Your task to perform on an android device: uninstall "ColorNote Notepad Notes" Image 0: 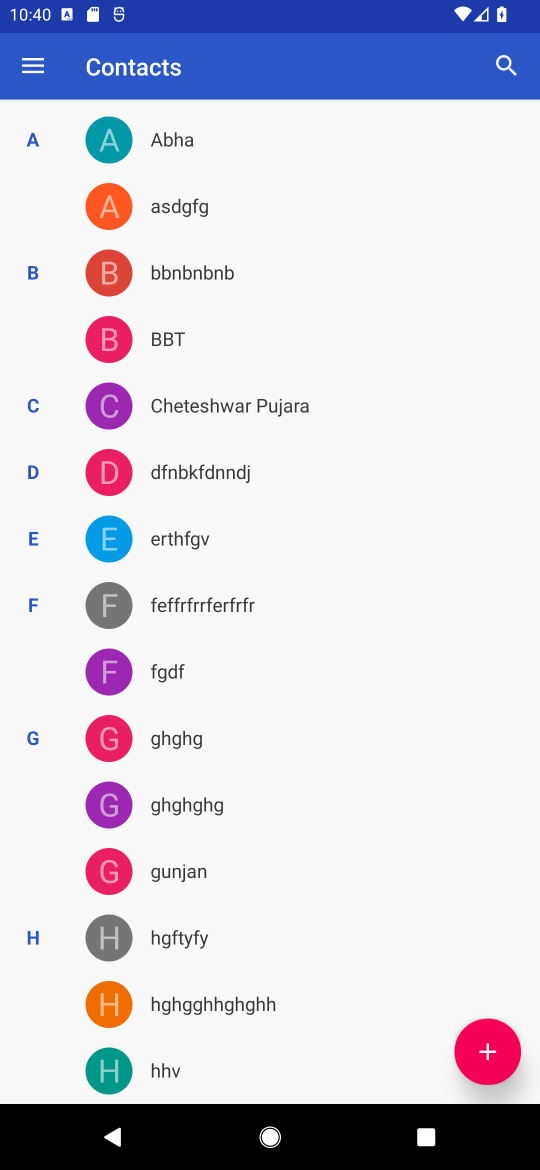
Step 0: press home button
Your task to perform on an android device: uninstall "ColorNote Notepad Notes" Image 1: 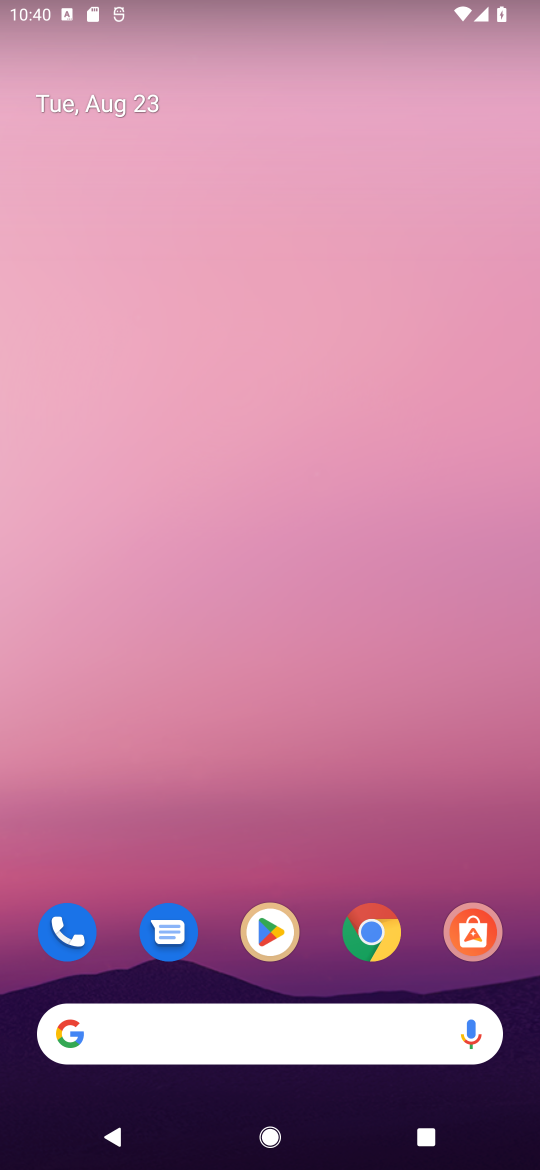
Step 1: click (266, 933)
Your task to perform on an android device: uninstall "ColorNote Notepad Notes" Image 2: 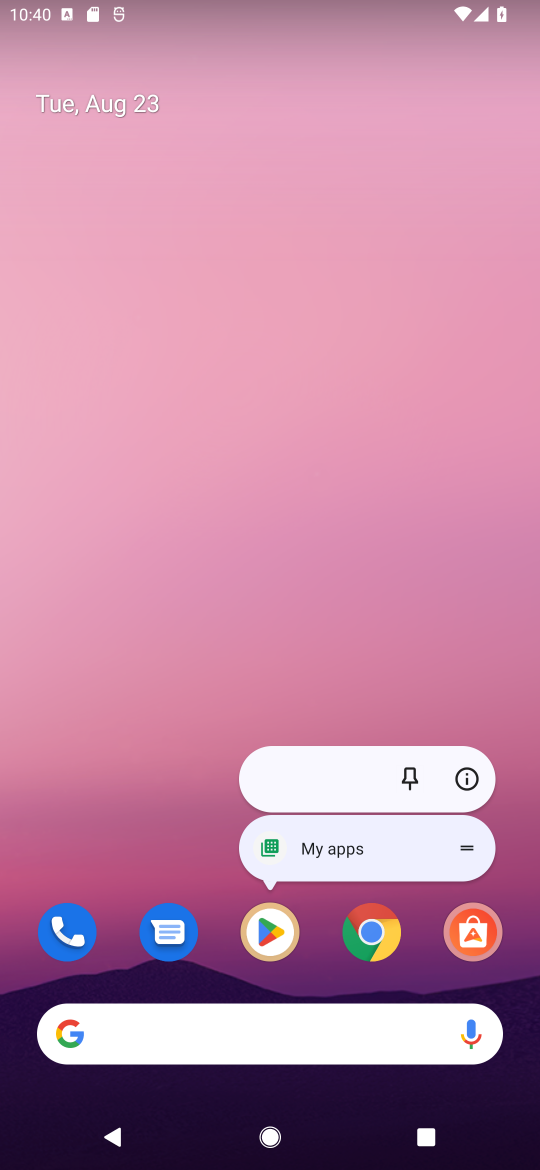
Step 2: click (252, 939)
Your task to perform on an android device: uninstall "ColorNote Notepad Notes" Image 3: 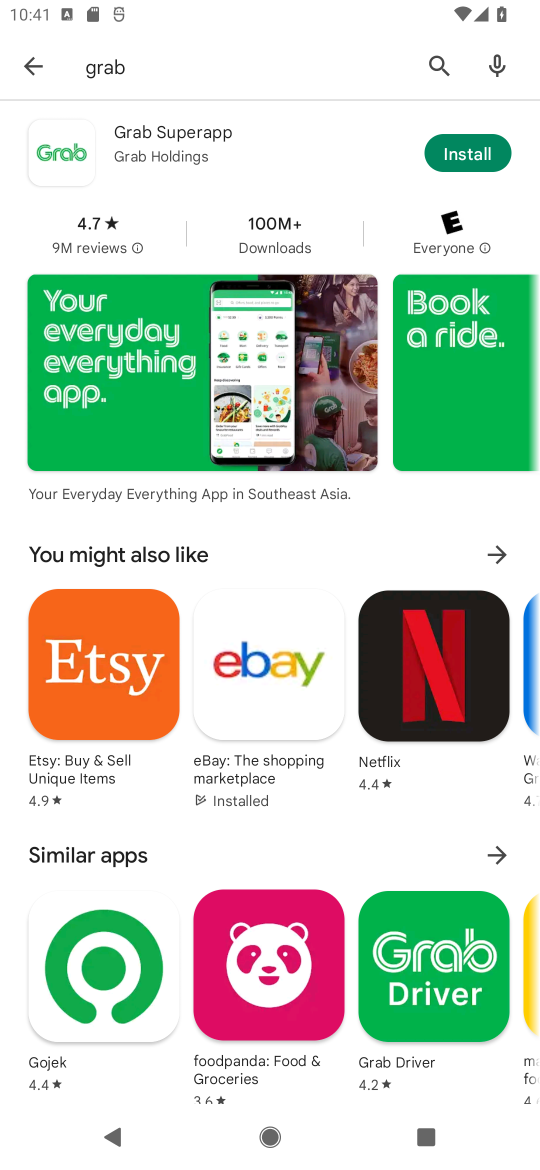
Step 3: click (451, 79)
Your task to perform on an android device: uninstall "ColorNote Notepad Notes" Image 4: 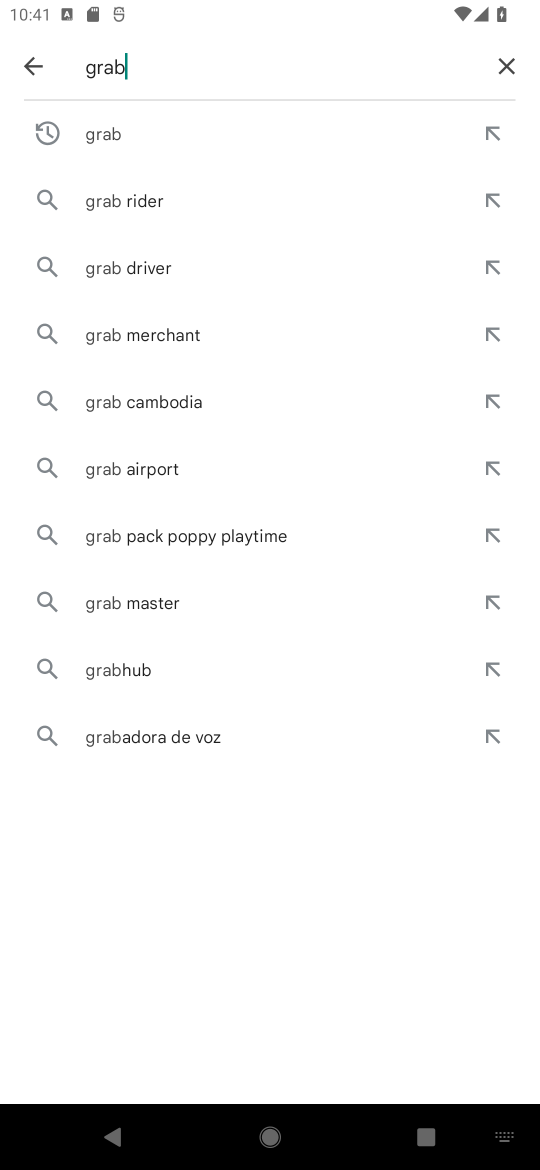
Step 4: click (515, 56)
Your task to perform on an android device: uninstall "ColorNote Notepad Notes" Image 5: 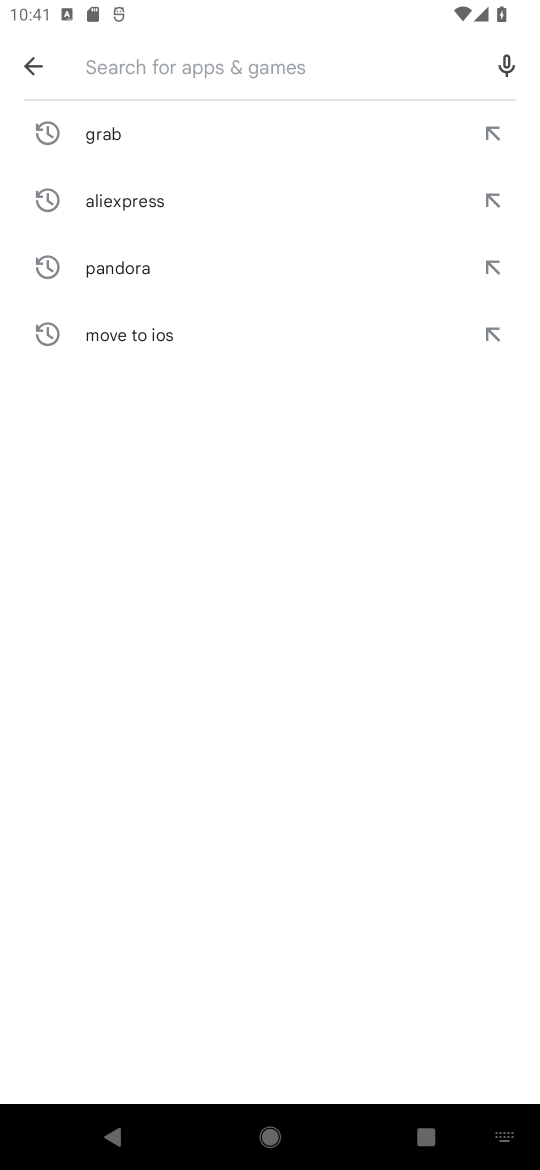
Step 5: click (152, 51)
Your task to perform on an android device: uninstall "ColorNote Notepad Notes" Image 6: 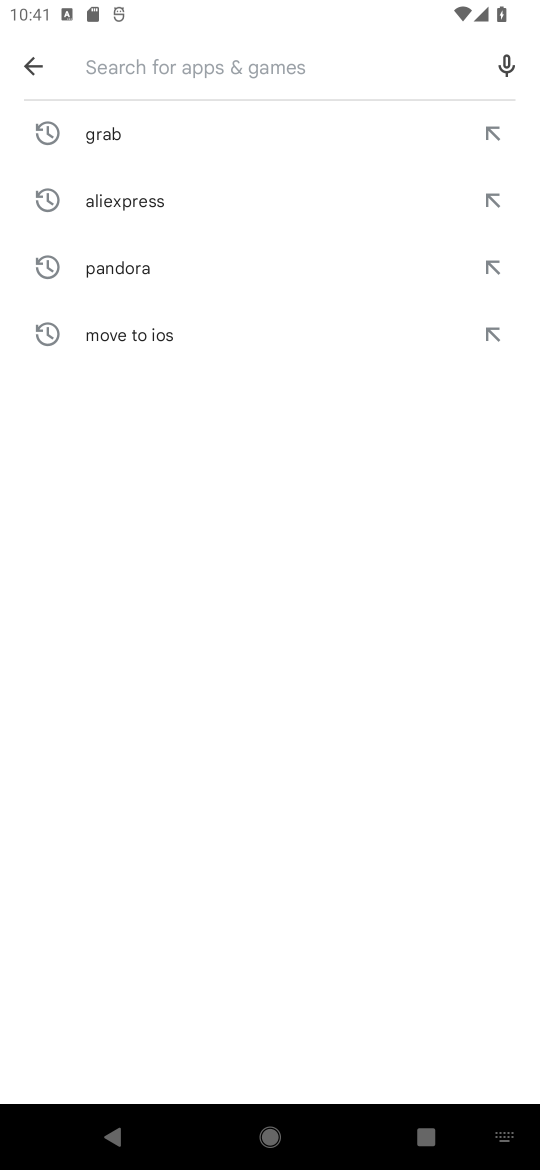
Step 6: type "ColorNote Notepad Notes"
Your task to perform on an android device: uninstall "ColorNote Notepad Notes" Image 7: 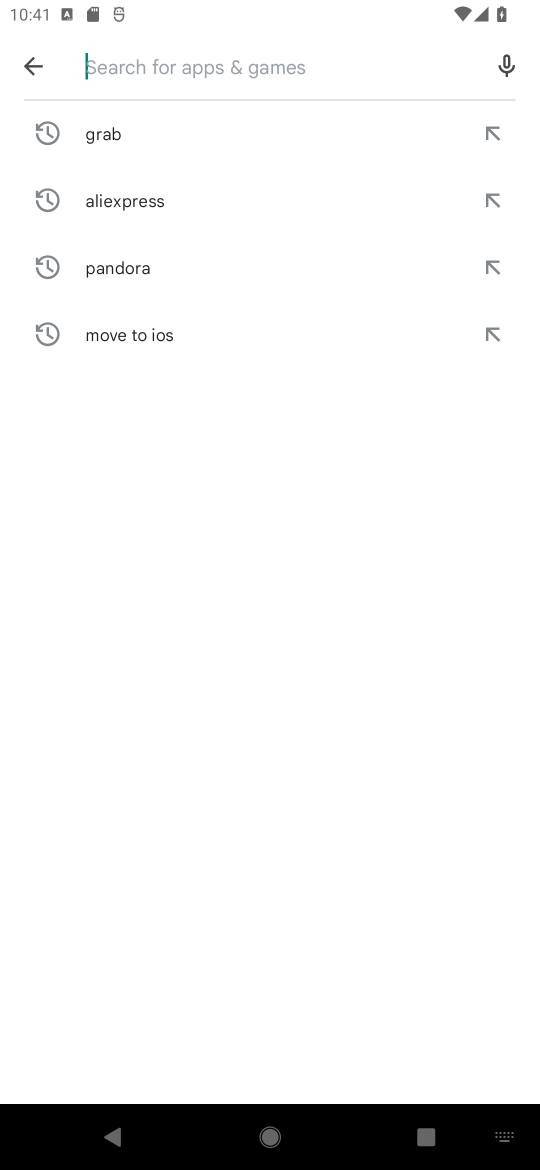
Step 7: click (276, 700)
Your task to perform on an android device: uninstall "ColorNote Notepad Notes" Image 8: 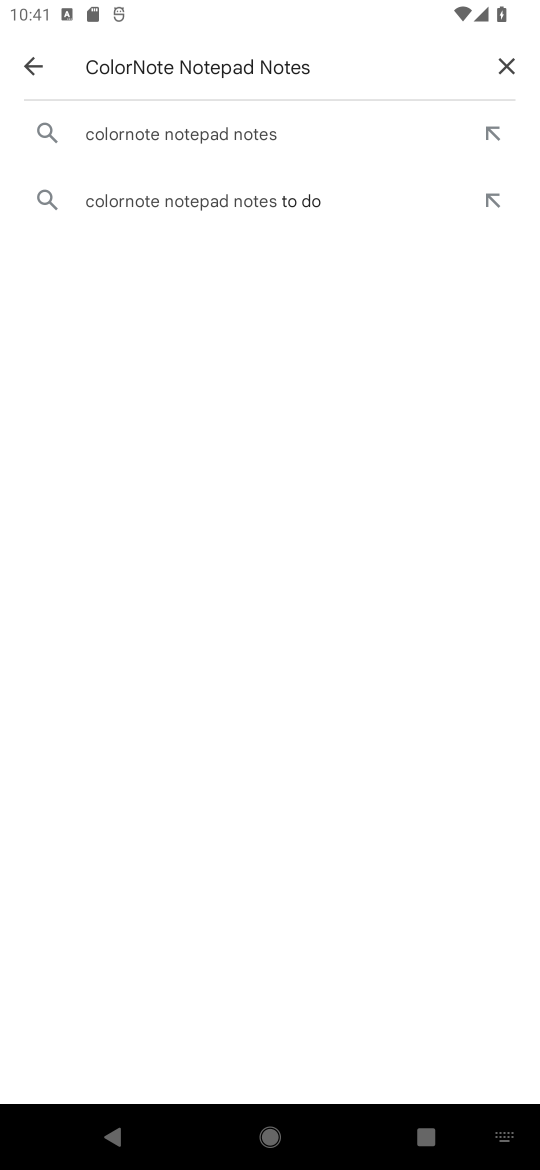
Step 8: click (216, 120)
Your task to perform on an android device: uninstall "ColorNote Notepad Notes" Image 9: 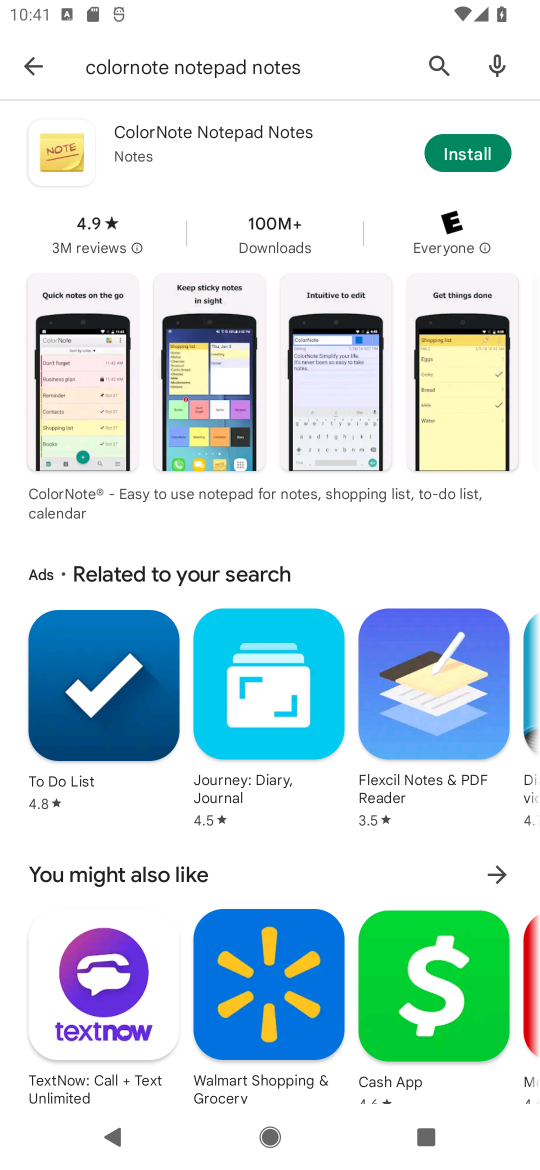
Step 9: task complete